Your task to perform on an android device: refresh tabs in the chrome app Image 0: 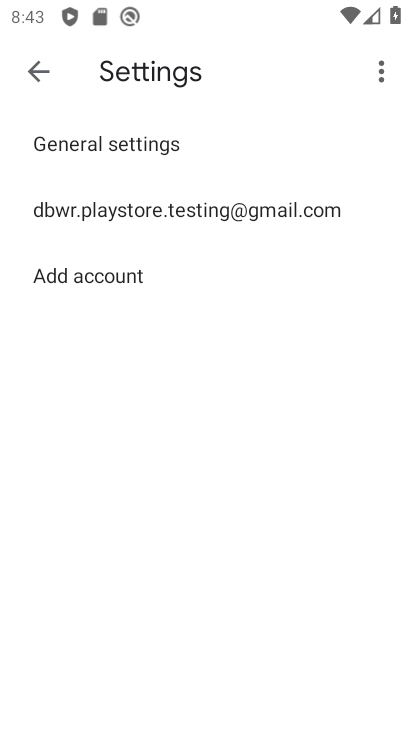
Step 0: press home button
Your task to perform on an android device: refresh tabs in the chrome app Image 1: 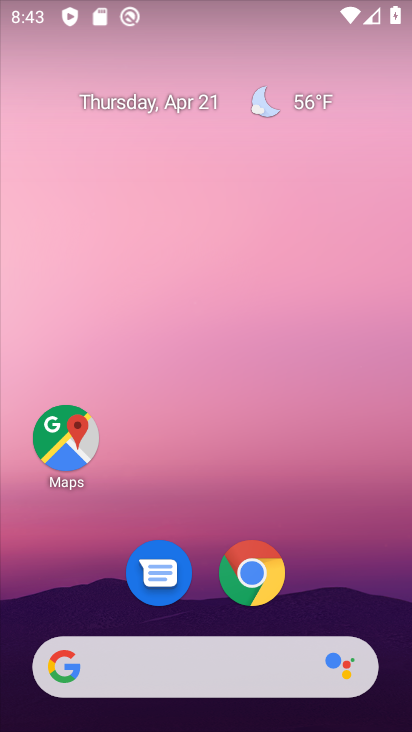
Step 1: click (252, 581)
Your task to perform on an android device: refresh tabs in the chrome app Image 2: 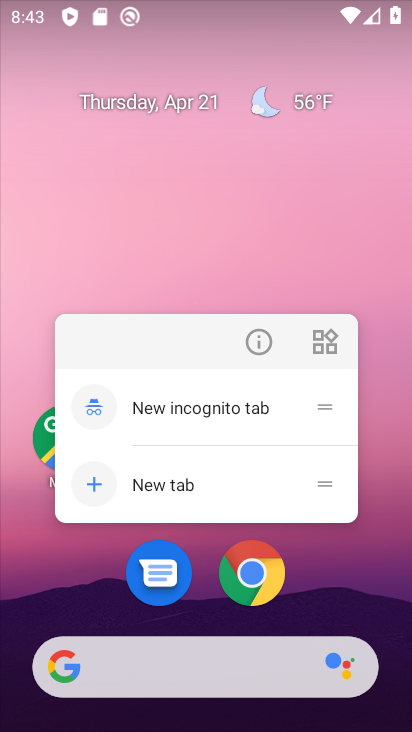
Step 2: click (246, 569)
Your task to perform on an android device: refresh tabs in the chrome app Image 3: 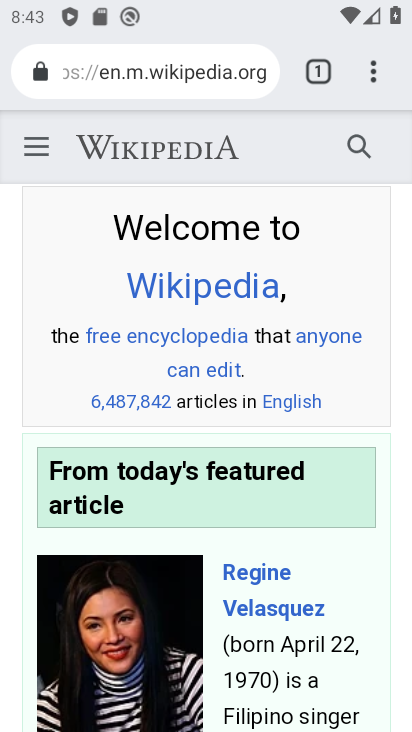
Step 3: click (372, 87)
Your task to perform on an android device: refresh tabs in the chrome app Image 4: 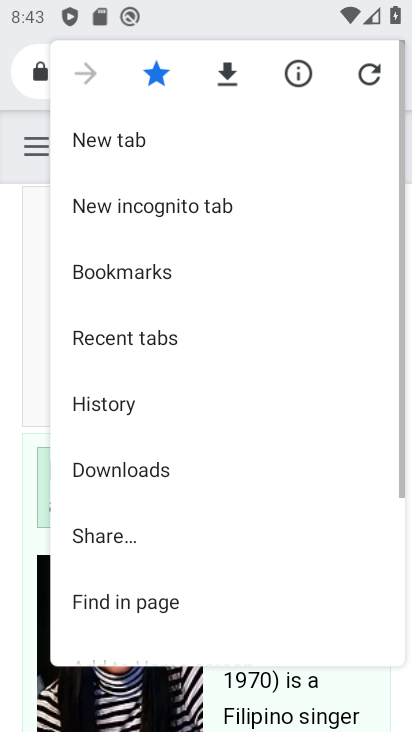
Step 4: click (371, 80)
Your task to perform on an android device: refresh tabs in the chrome app Image 5: 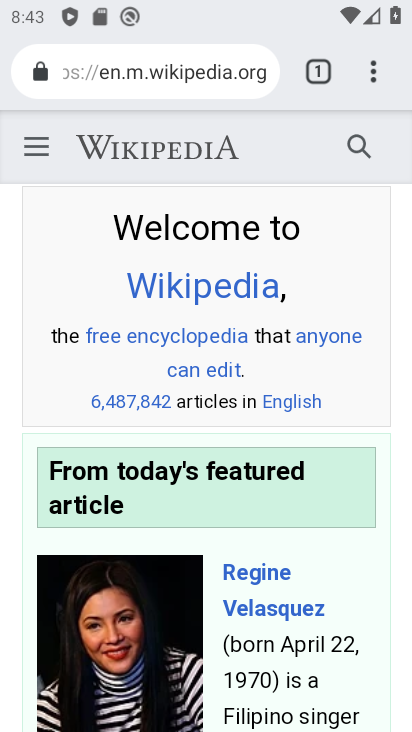
Step 5: task complete